Your task to perform on an android device: open chrome privacy settings Image 0: 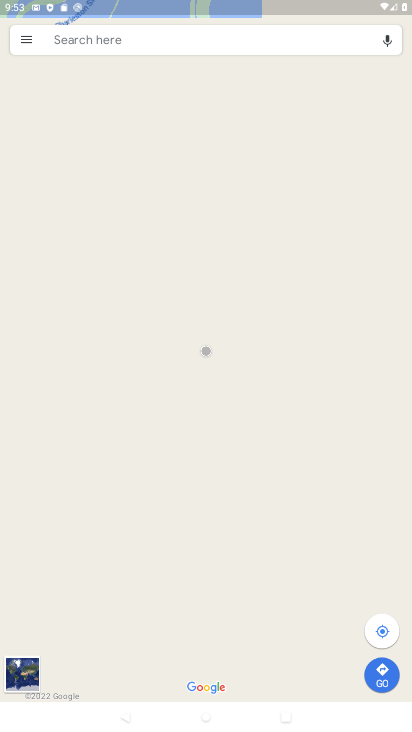
Step 0: press home button
Your task to perform on an android device: open chrome privacy settings Image 1: 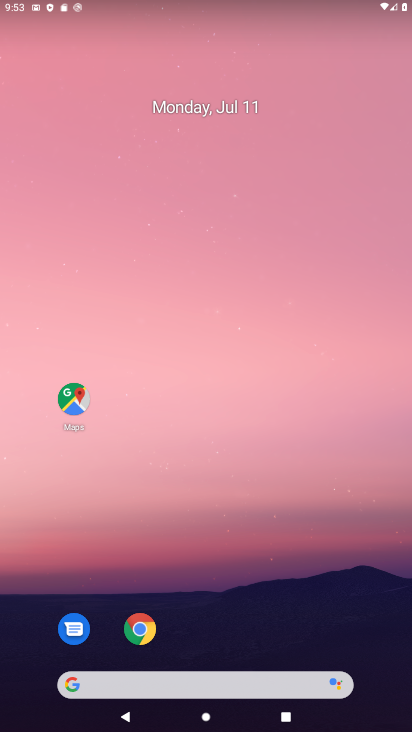
Step 1: click (150, 630)
Your task to perform on an android device: open chrome privacy settings Image 2: 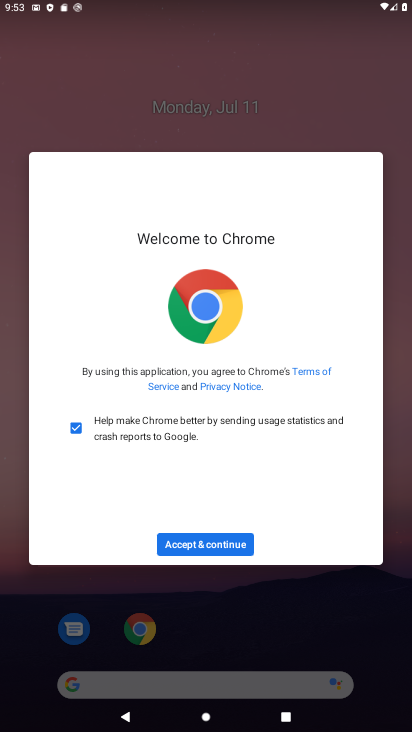
Step 2: click (220, 535)
Your task to perform on an android device: open chrome privacy settings Image 3: 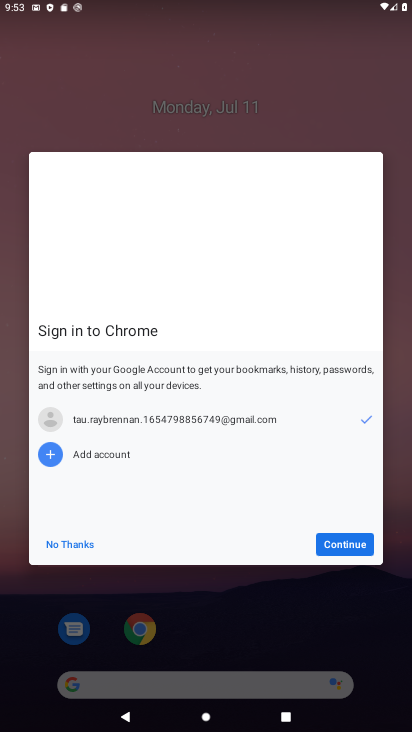
Step 3: click (318, 535)
Your task to perform on an android device: open chrome privacy settings Image 4: 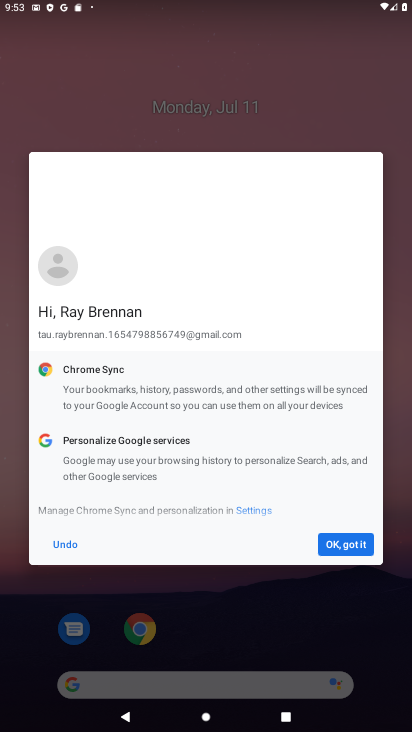
Step 4: click (319, 536)
Your task to perform on an android device: open chrome privacy settings Image 5: 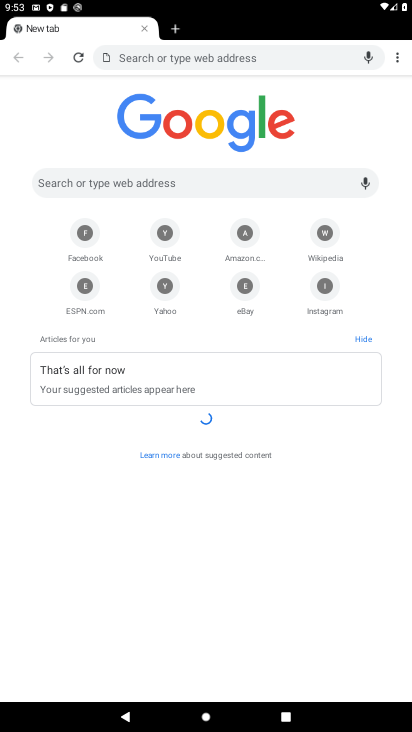
Step 5: click (395, 58)
Your task to perform on an android device: open chrome privacy settings Image 6: 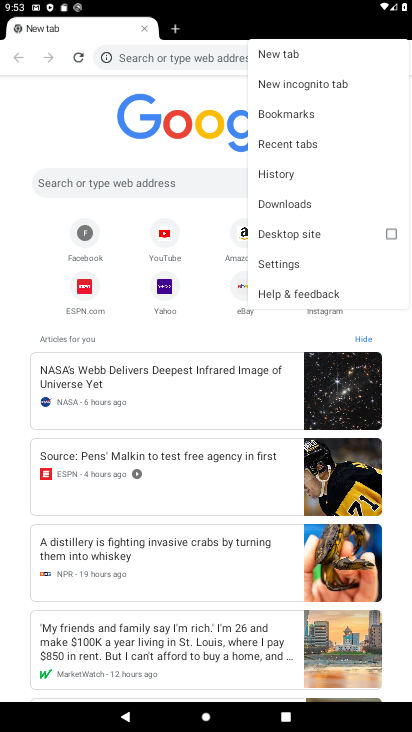
Step 6: click (296, 264)
Your task to perform on an android device: open chrome privacy settings Image 7: 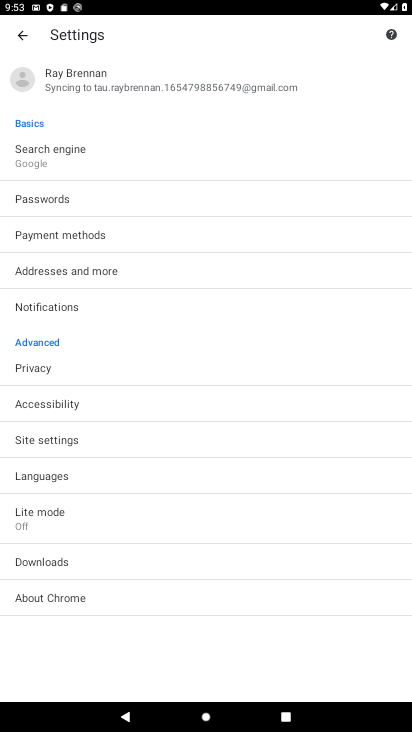
Step 7: click (72, 372)
Your task to perform on an android device: open chrome privacy settings Image 8: 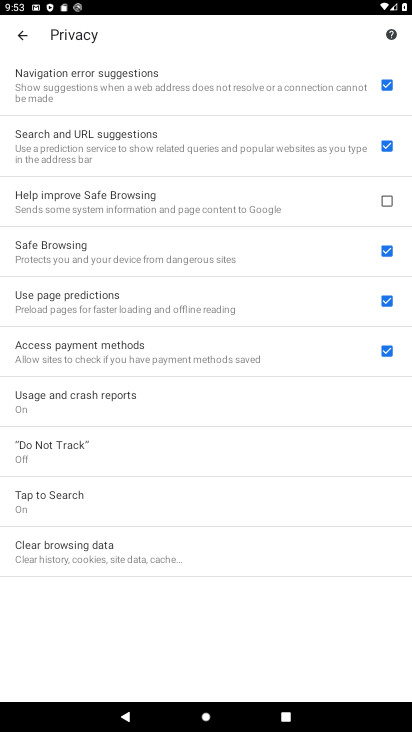
Step 8: task complete